Your task to perform on an android device: Search for Italian restaurants on Maps Image 0: 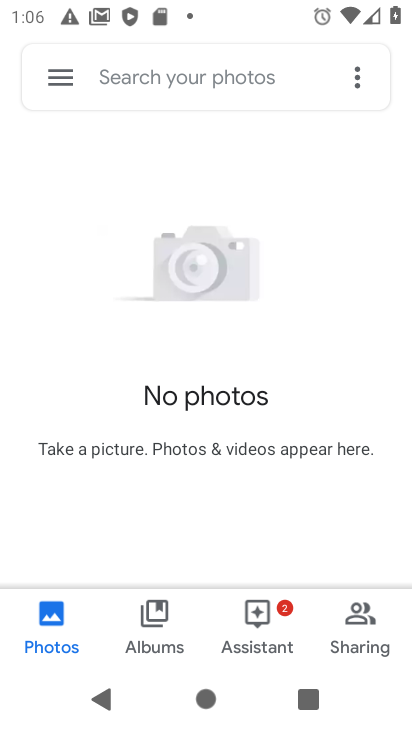
Step 0: press back button
Your task to perform on an android device: Search for Italian restaurants on Maps Image 1: 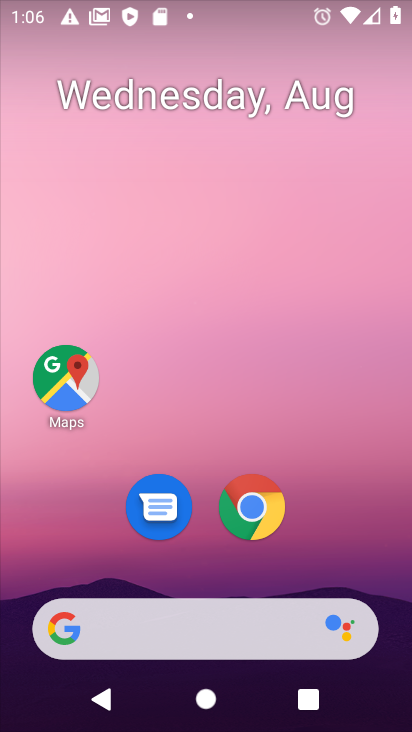
Step 1: drag from (211, 558) to (359, 15)
Your task to perform on an android device: Search for Italian restaurants on Maps Image 2: 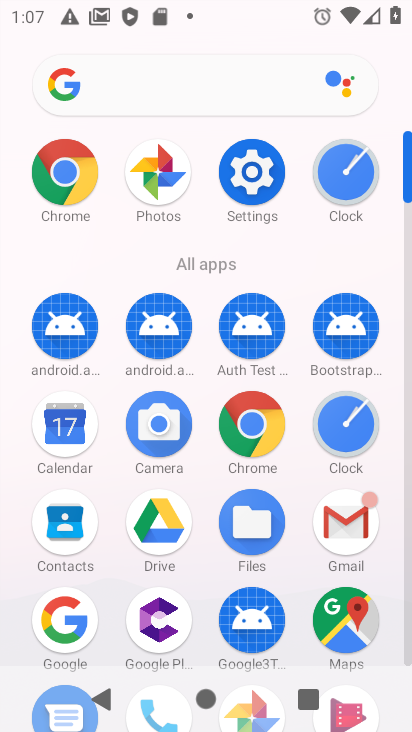
Step 2: click (355, 621)
Your task to perform on an android device: Search for Italian restaurants on Maps Image 3: 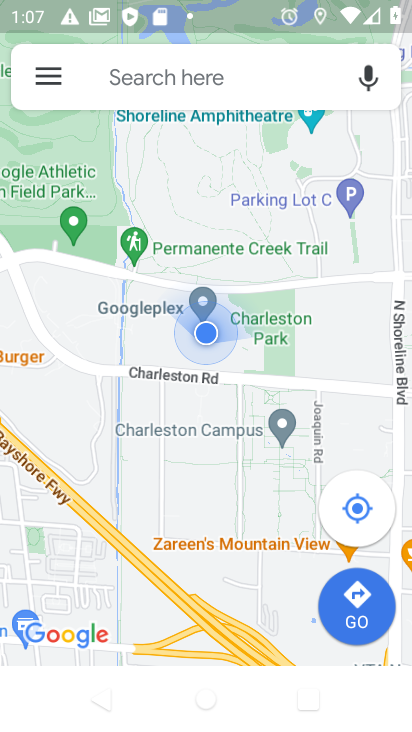
Step 3: click (263, 85)
Your task to perform on an android device: Search for Italian restaurants on Maps Image 4: 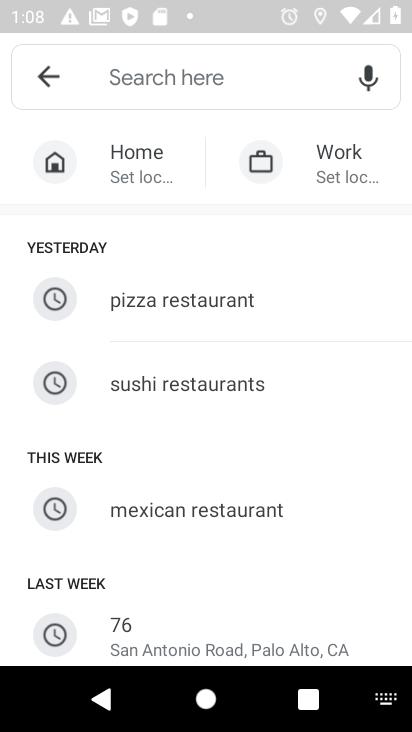
Step 4: drag from (108, 345) to (60, 12)
Your task to perform on an android device: Search for Italian restaurants on Maps Image 5: 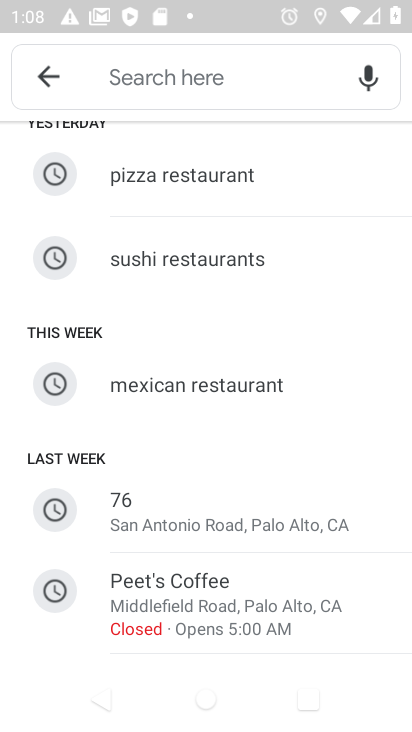
Step 5: type "Italian restaurants"
Your task to perform on an android device: Search for Italian restaurants on Maps Image 6: 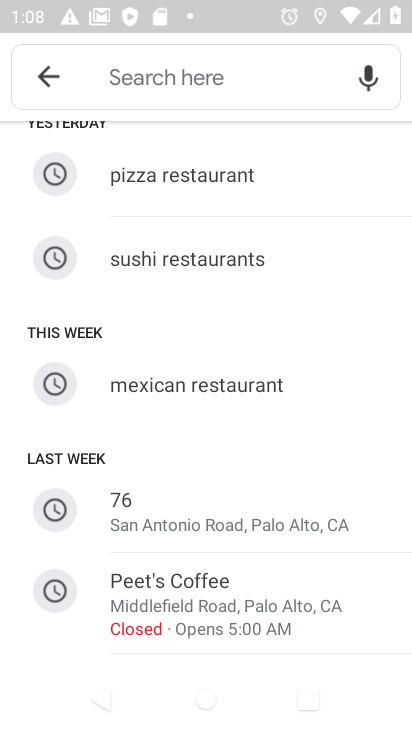
Step 6: click (173, 79)
Your task to perform on an android device: Search for Italian restaurants on Maps Image 7: 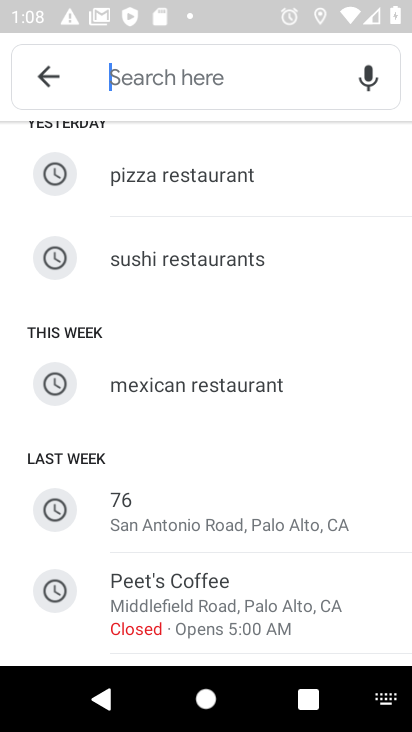
Step 7: type " Italian restaurants"
Your task to perform on an android device: Search for Italian restaurants on Maps Image 8: 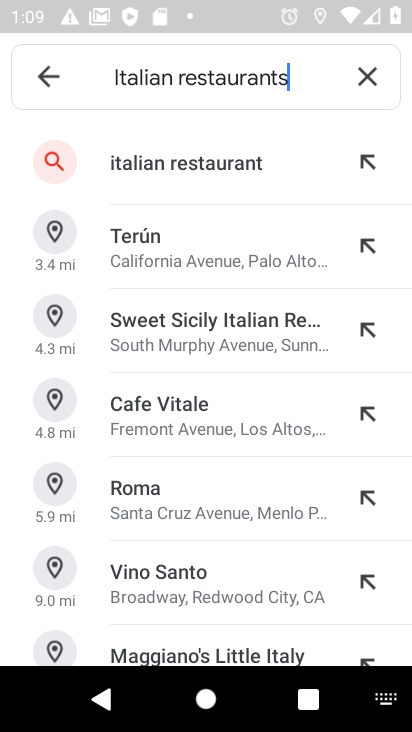
Step 8: click (133, 163)
Your task to perform on an android device: Search for Italian restaurants on Maps Image 9: 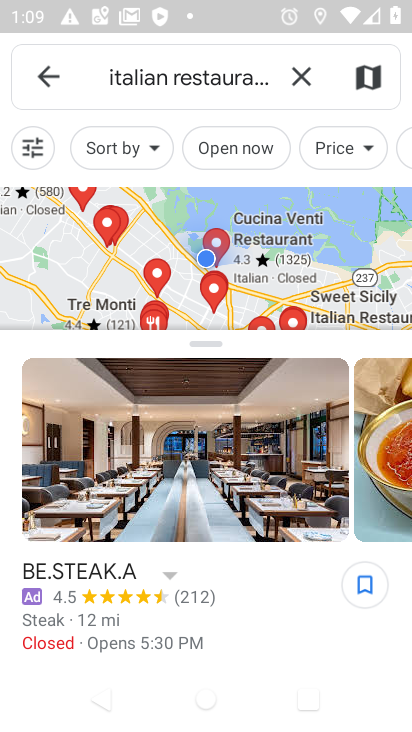
Step 9: task complete